Your task to perform on an android device: open the mobile data screen to see how much data has been used Image 0: 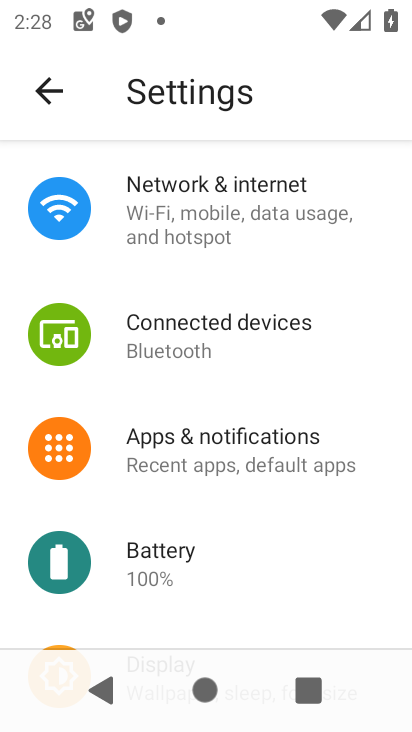
Step 0: click (136, 211)
Your task to perform on an android device: open the mobile data screen to see how much data has been used Image 1: 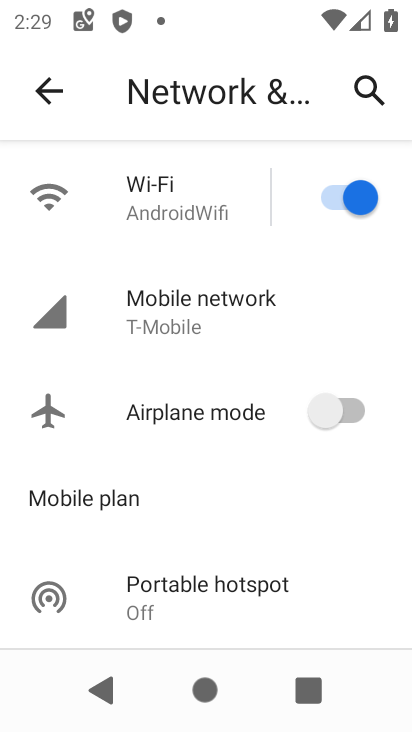
Step 1: click (194, 318)
Your task to perform on an android device: open the mobile data screen to see how much data has been used Image 2: 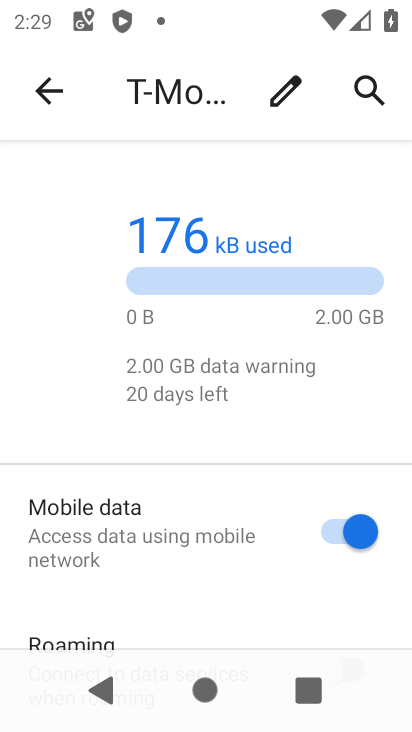
Step 2: drag from (208, 575) to (196, 255)
Your task to perform on an android device: open the mobile data screen to see how much data has been used Image 3: 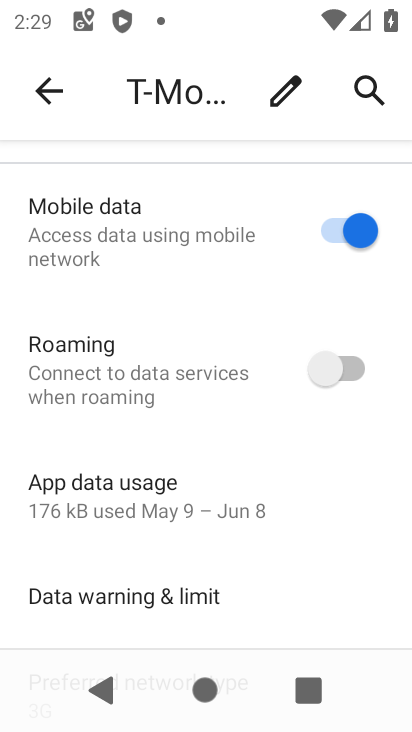
Step 3: click (145, 493)
Your task to perform on an android device: open the mobile data screen to see how much data has been used Image 4: 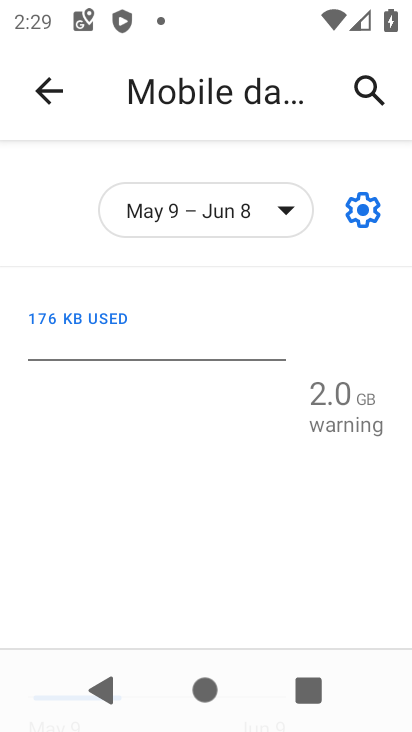
Step 4: task complete